Your task to perform on an android device: Turn off the flashlight Image 0: 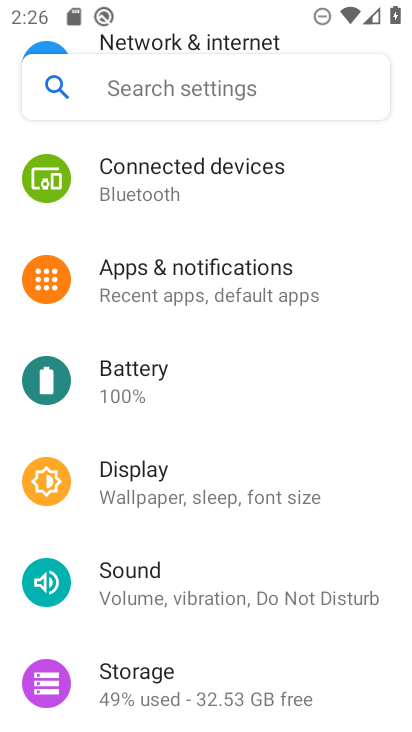
Step 0: press back button
Your task to perform on an android device: Turn off the flashlight Image 1: 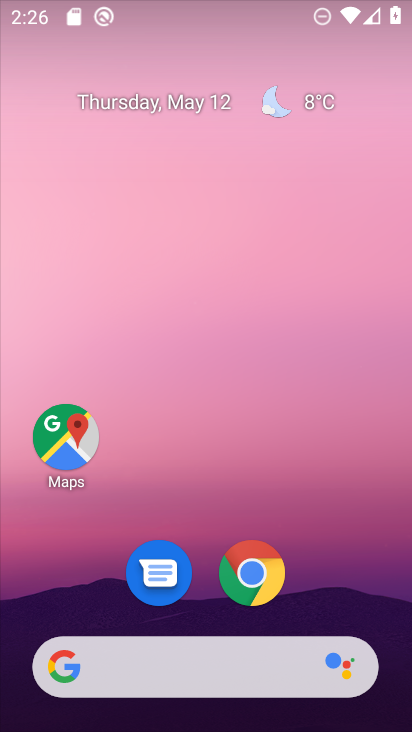
Step 1: task complete